Your task to perform on an android device: allow cookies in the chrome app Image 0: 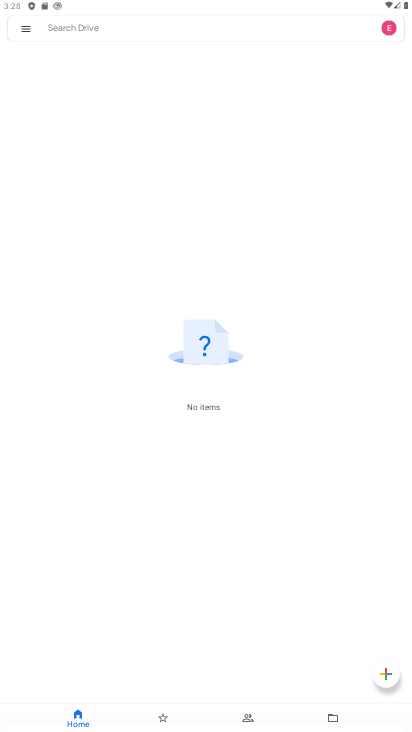
Step 0: press home button
Your task to perform on an android device: allow cookies in the chrome app Image 1: 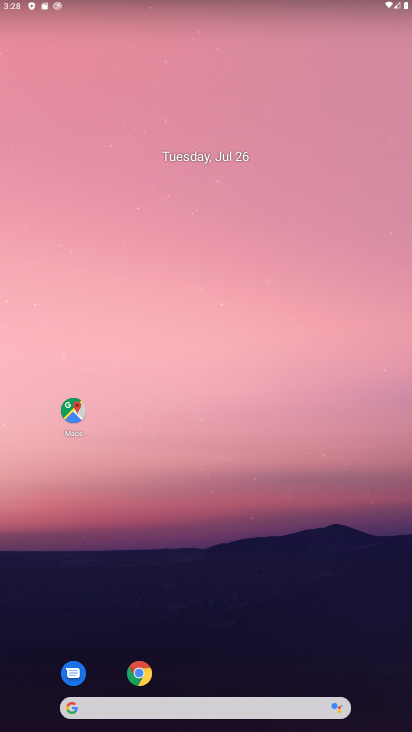
Step 1: click (140, 676)
Your task to perform on an android device: allow cookies in the chrome app Image 2: 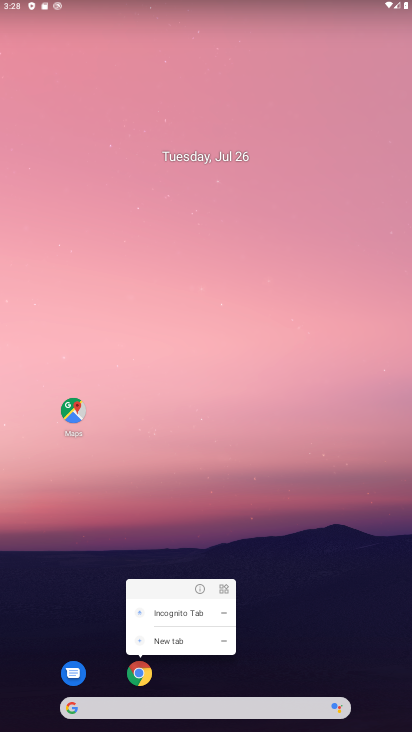
Step 2: click (140, 676)
Your task to perform on an android device: allow cookies in the chrome app Image 3: 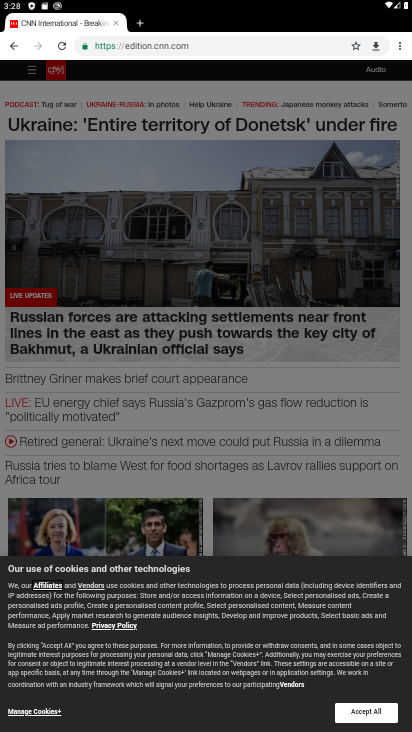
Step 3: drag from (400, 46) to (317, 279)
Your task to perform on an android device: allow cookies in the chrome app Image 4: 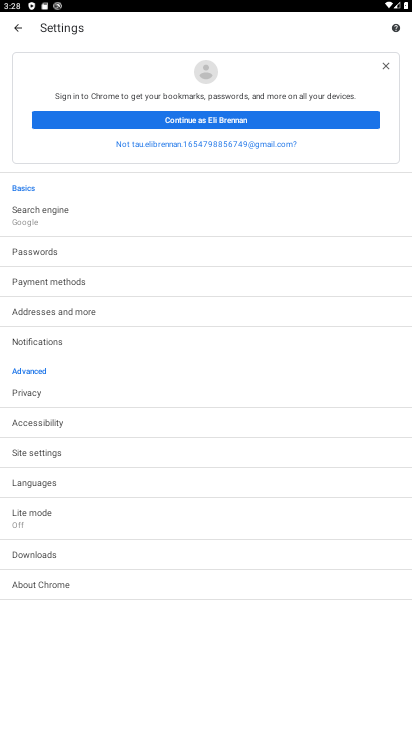
Step 4: click (40, 460)
Your task to perform on an android device: allow cookies in the chrome app Image 5: 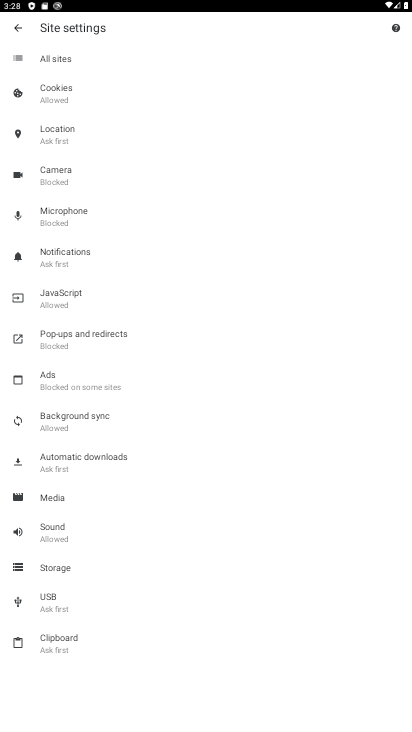
Step 5: click (52, 96)
Your task to perform on an android device: allow cookies in the chrome app Image 6: 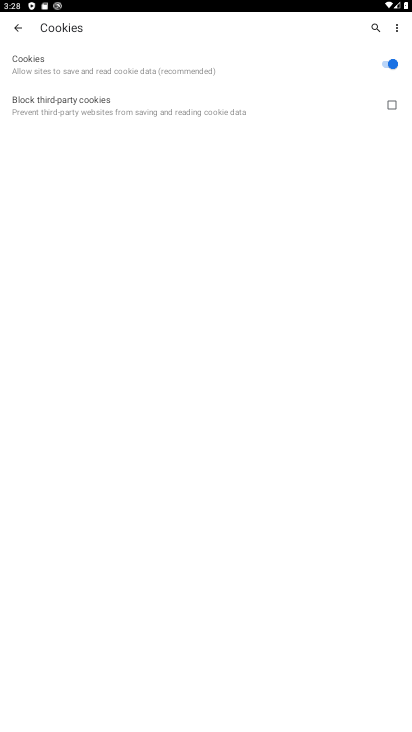
Step 6: task complete